Your task to perform on an android device: turn off location history Image 0: 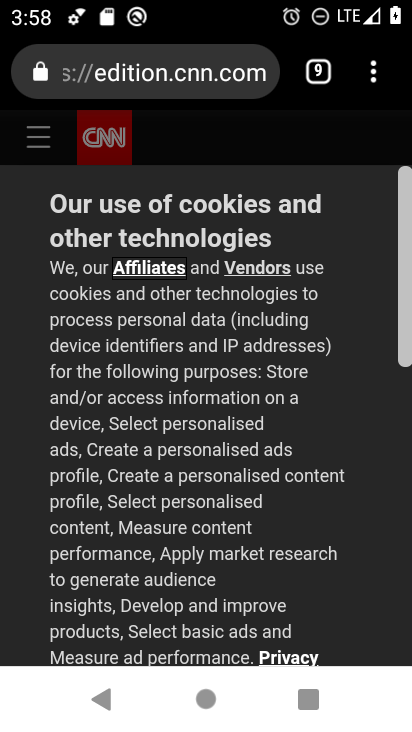
Step 0: drag from (372, 62) to (159, 512)
Your task to perform on an android device: turn off location history Image 1: 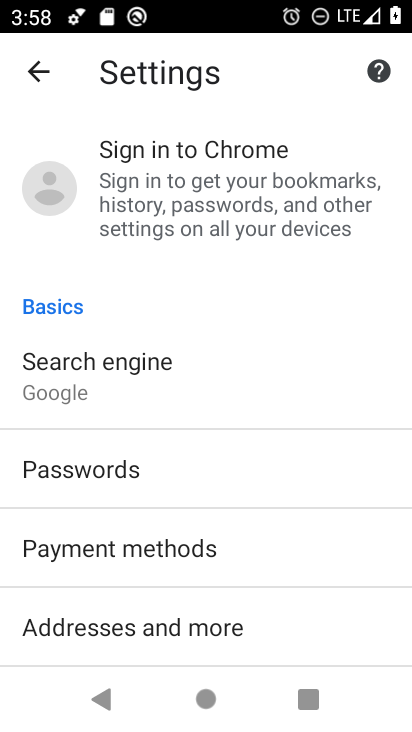
Step 1: press home button
Your task to perform on an android device: turn off location history Image 2: 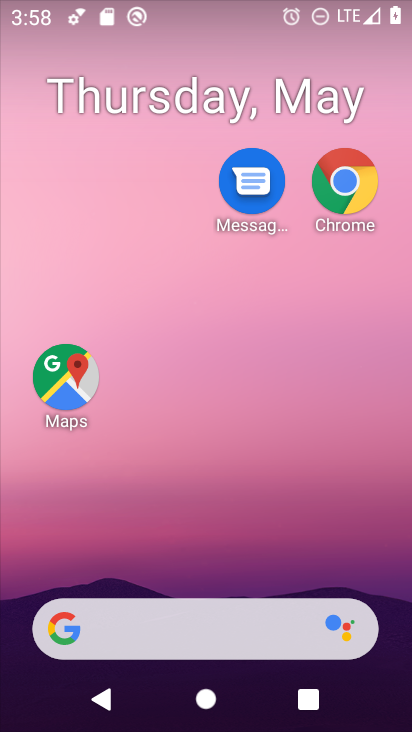
Step 2: drag from (302, 585) to (298, 20)
Your task to perform on an android device: turn off location history Image 3: 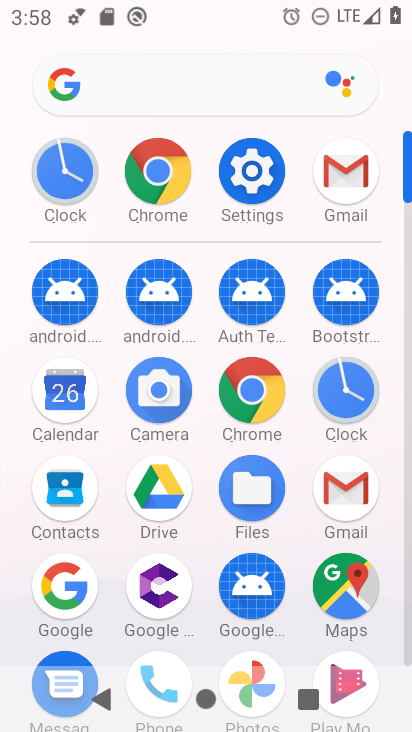
Step 3: click (261, 180)
Your task to perform on an android device: turn off location history Image 4: 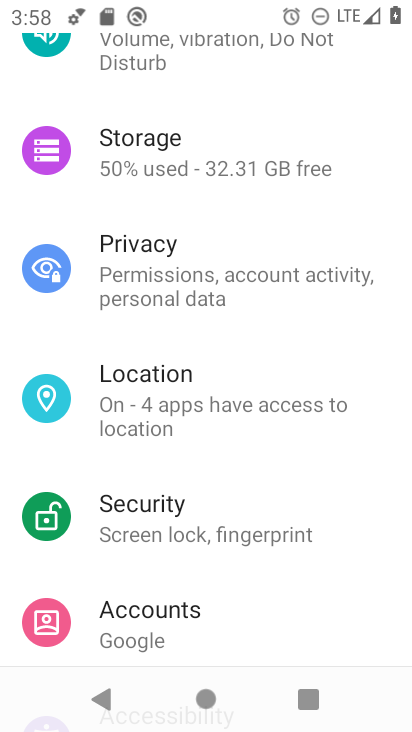
Step 4: click (199, 397)
Your task to perform on an android device: turn off location history Image 5: 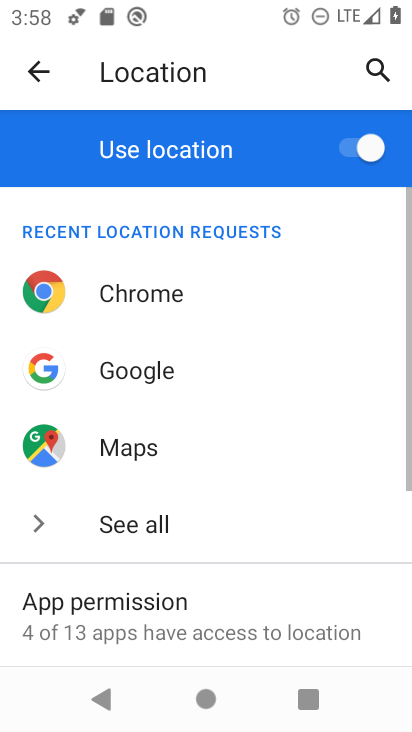
Step 5: drag from (246, 627) to (261, 162)
Your task to perform on an android device: turn off location history Image 6: 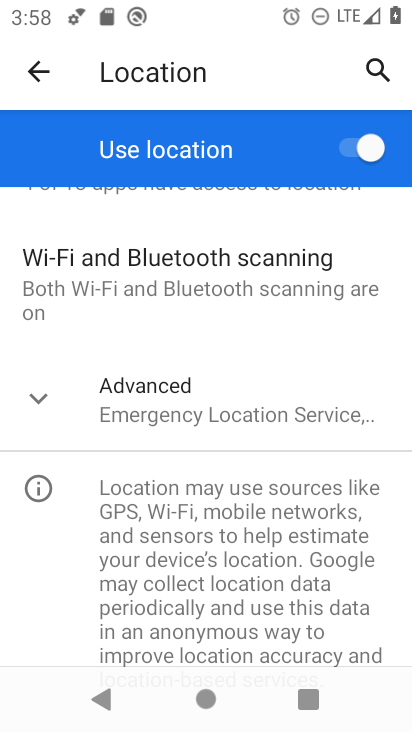
Step 6: click (219, 427)
Your task to perform on an android device: turn off location history Image 7: 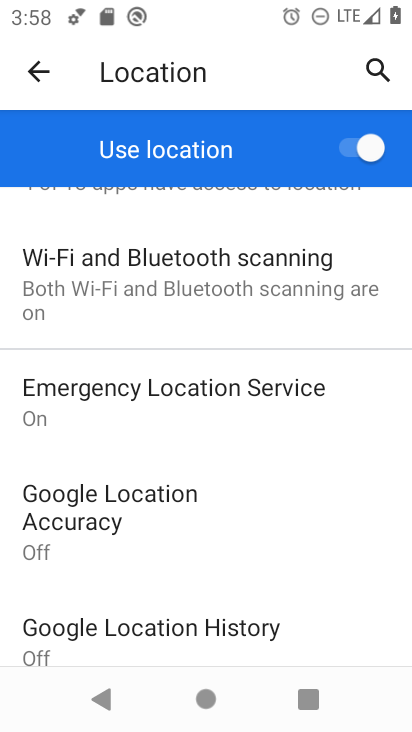
Step 7: click (268, 646)
Your task to perform on an android device: turn off location history Image 8: 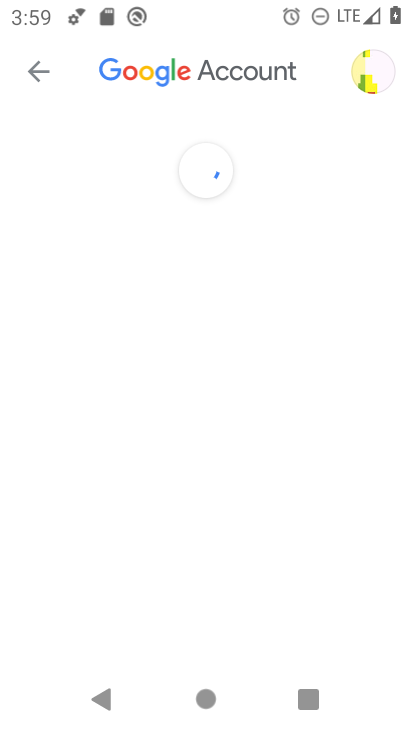
Step 8: drag from (277, 547) to (240, 32)
Your task to perform on an android device: turn off location history Image 9: 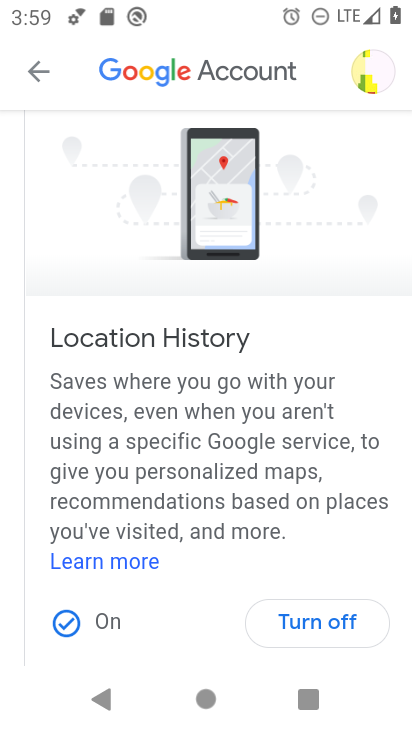
Step 9: click (300, 621)
Your task to perform on an android device: turn off location history Image 10: 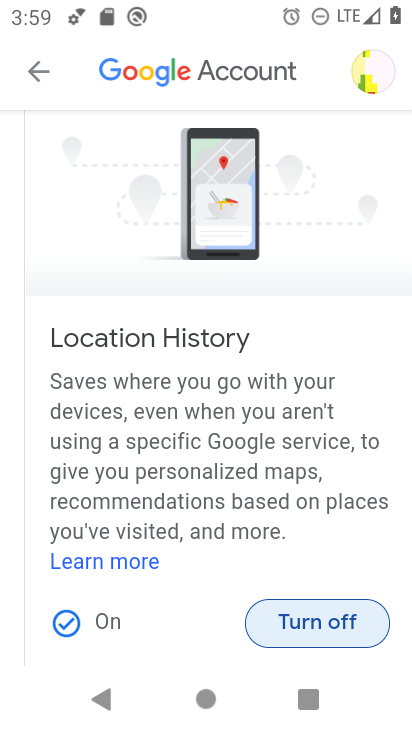
Step 10: click (303, 616)
Your task to perform on an android device: turn off location history Image 11: 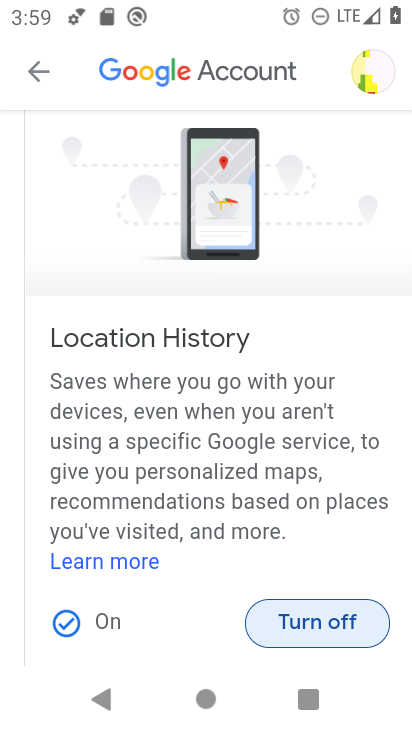
Step 11: click (296, 624)
Your task to perform on an android device: turn off location history Image 12: 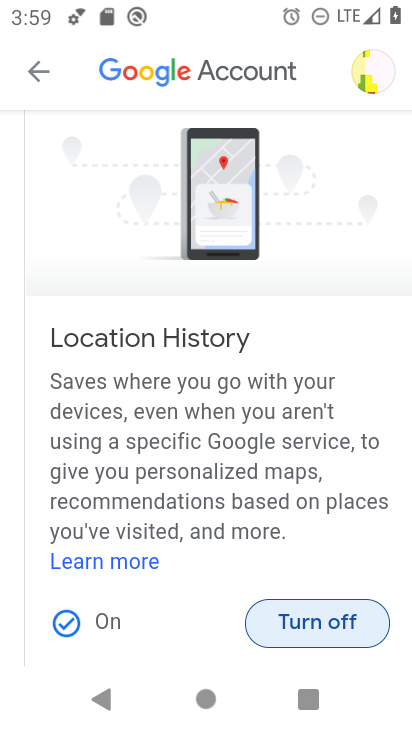
Step 12: click (296, 624)
Your task to perform on an android device: turn off location history Image 13: 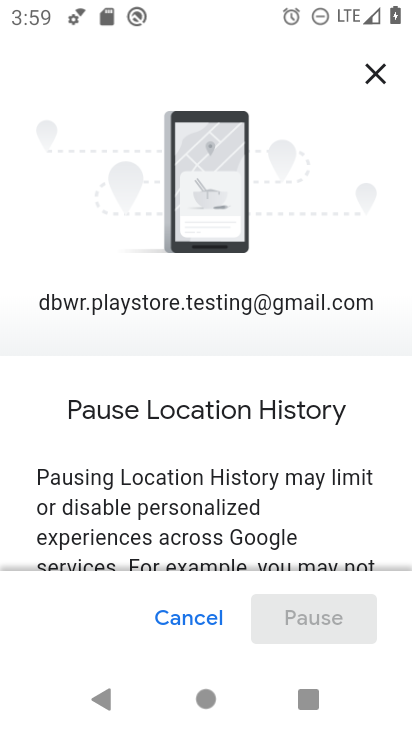
Step 13: drag from (223, 564) to (302, 102)
Your task to perform on an android device: turn off location history Image 14: 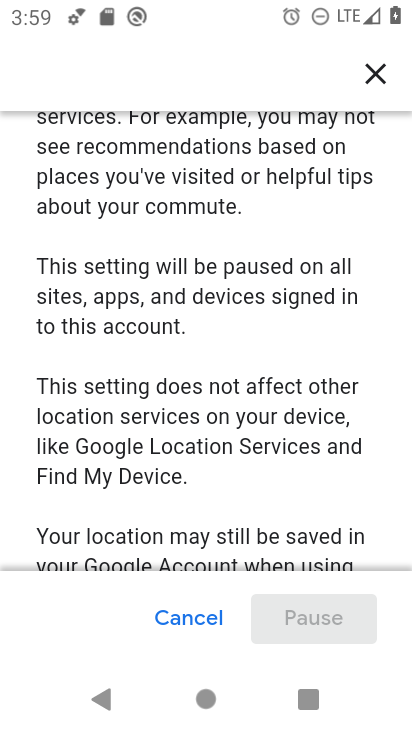
Step 14: drag from (194, 485) to (285, 84)
Your task to perform on an android device: turn off location history Image 15: 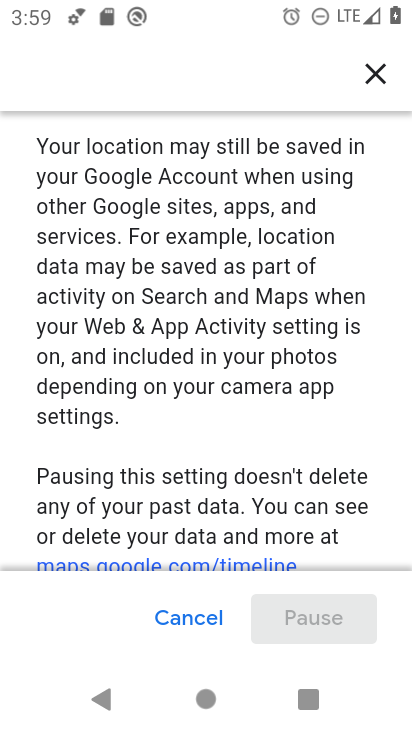
Step 15: drag from (263, 481) to (307, 35)
Your task to perform on an android device: turn off location history Image 16: 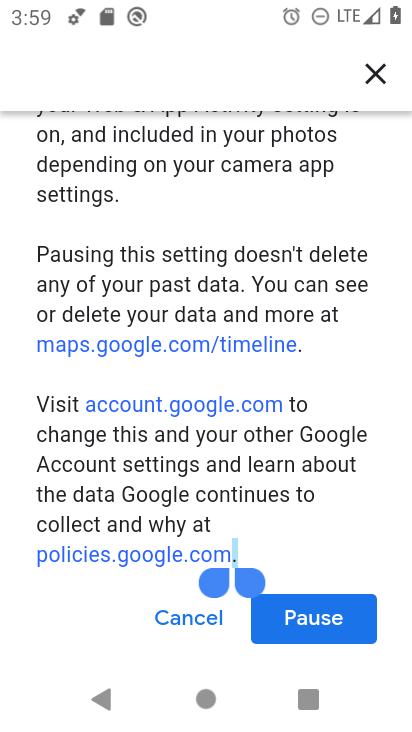
Step 16: click (301, 633)
Your task to perform on an android device: turn off location history Image 17: 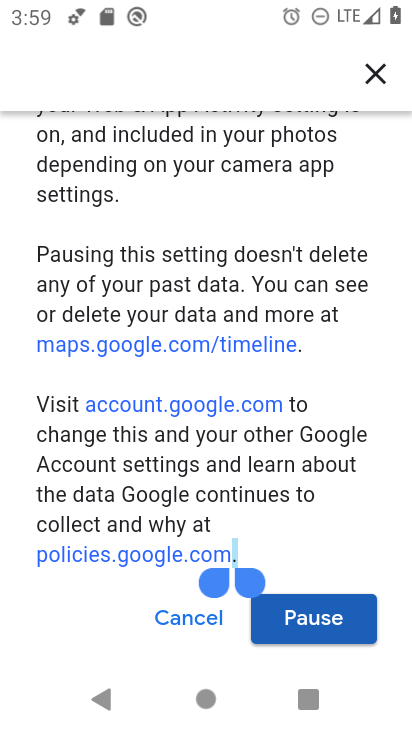
Step 17: click (348, 625)
Your task to perform on an android device: turn off location history Image 18: 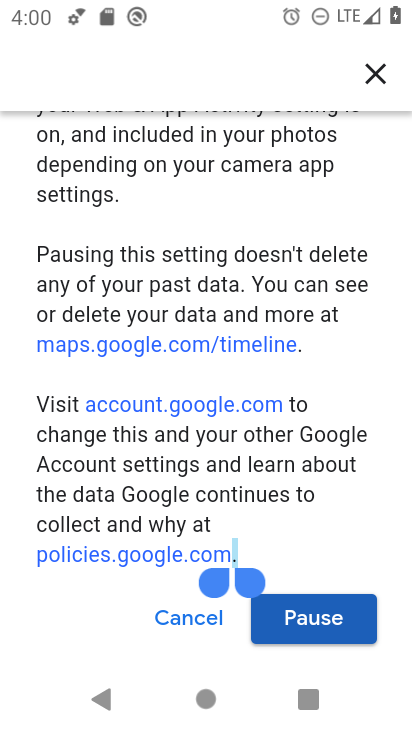
Step 18: click (312, 607)
Your task to perform on an android device: turn off location history Image 19: 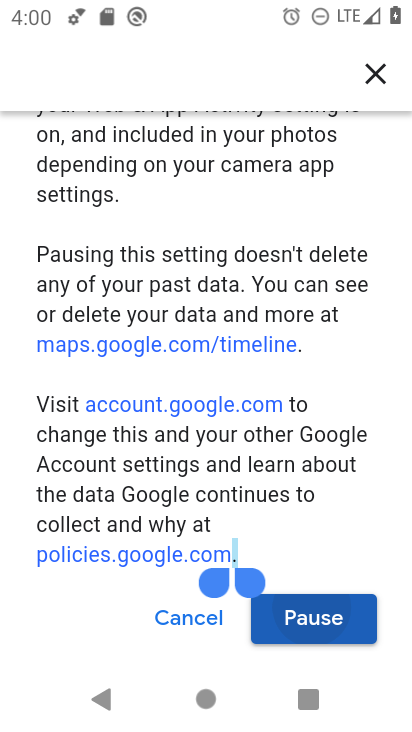
Step 19: click (312, 607)
Your task to perform on an android device: turn off location history Image 20: 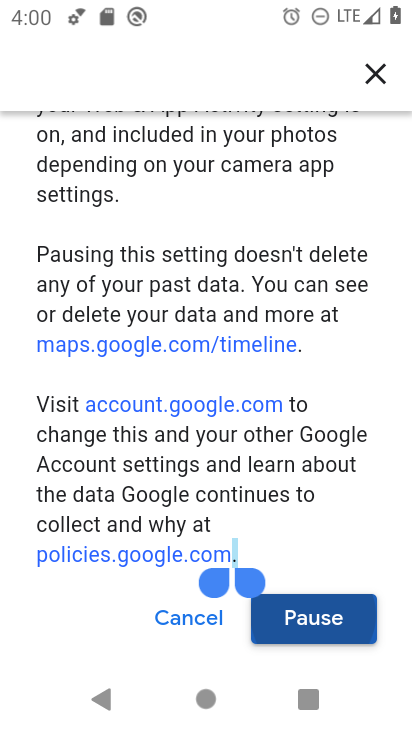
Step 20: click (312, 607)
Your task to perform on an android device: turn off location history Image 21: 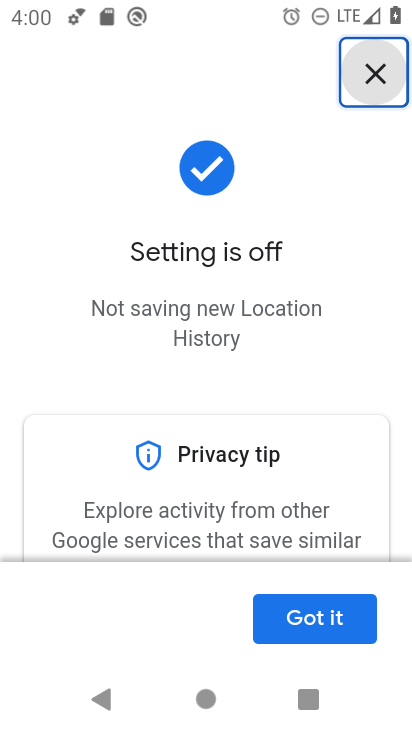
Step 21: task complete